Your task to perform on an android device: Search for pizza restaurants on Maps Image 0: 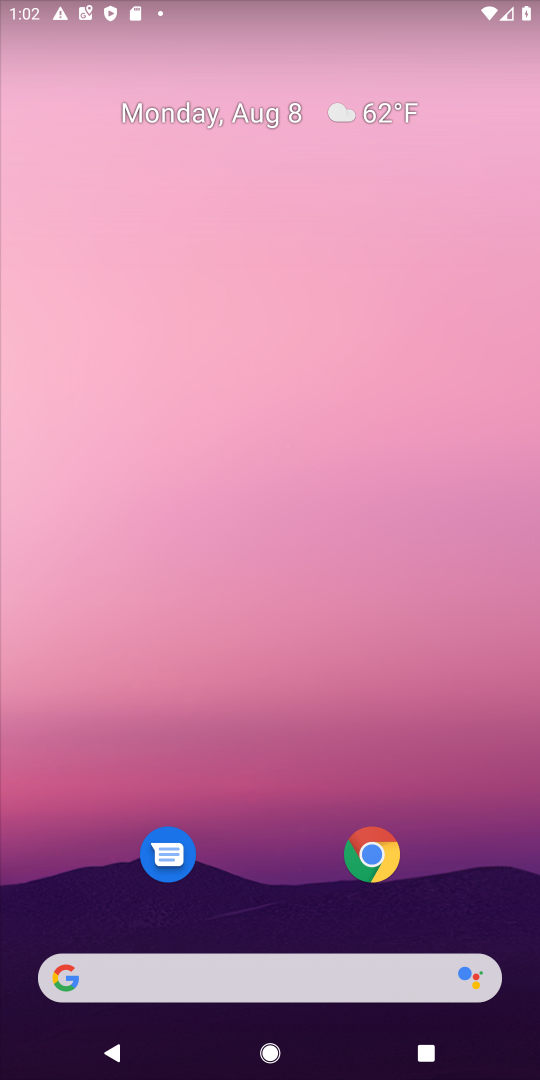
Step 0: press home button
Your task to perform on an android device: Search for pizza restaurants on Maps Image 1: 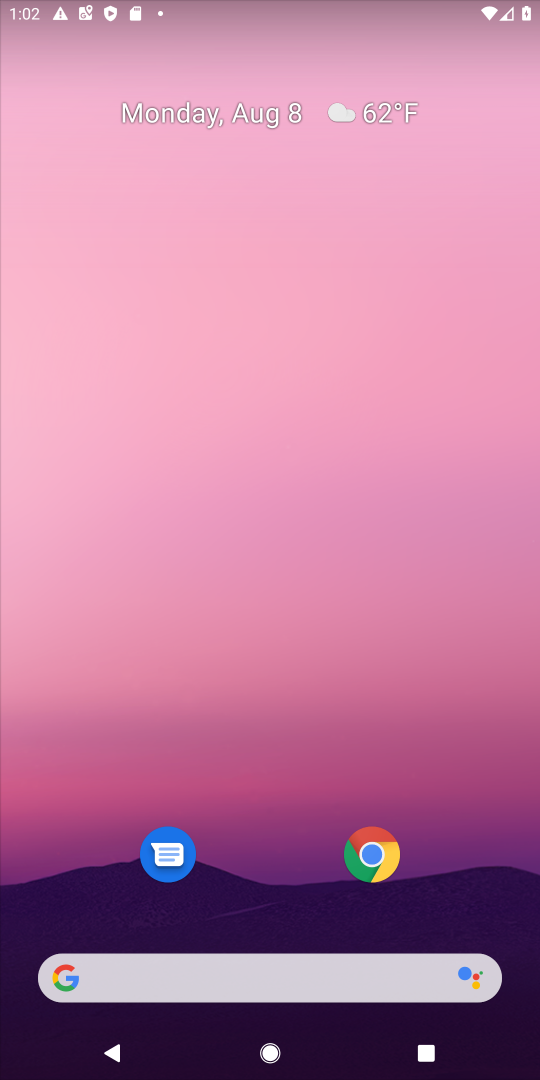
Step 1: press home button
Your task to perform on an android device: Search for pizza restaurants on Maps Image 2: 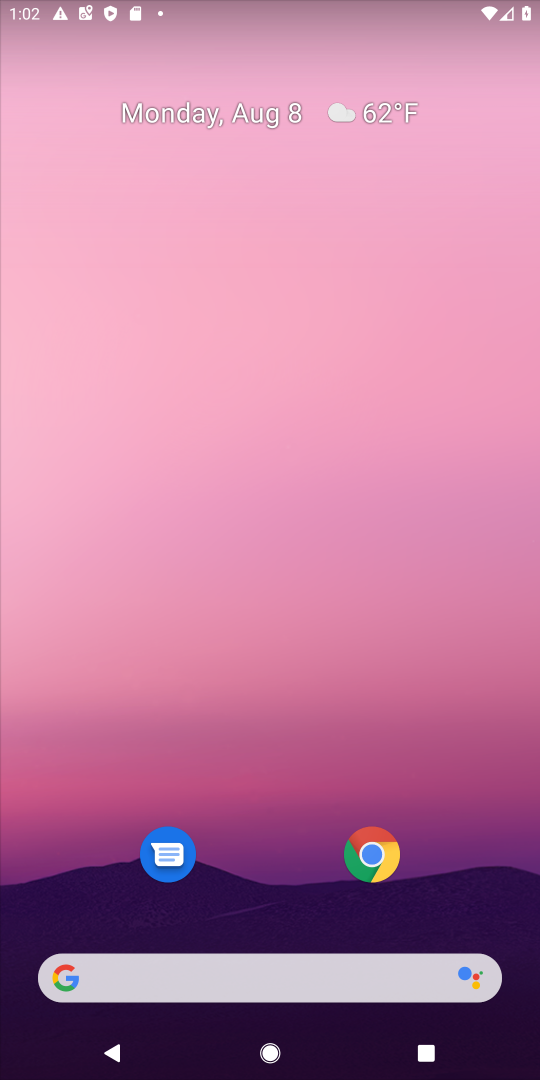
Step 2: drag from (257, 893) to (304, 138)
Your task to perform on an android device: Search for pizza restaurants on Maps Image 3: 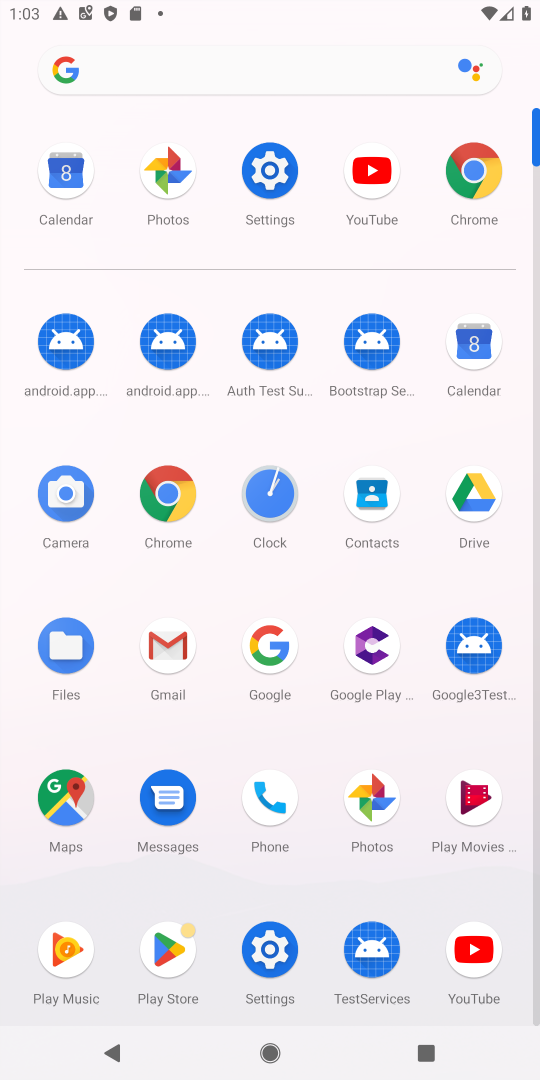
Step 3: click (77, 784)
Your task to perform on an android device: Search for pizza restaurants on Maps Image 4: 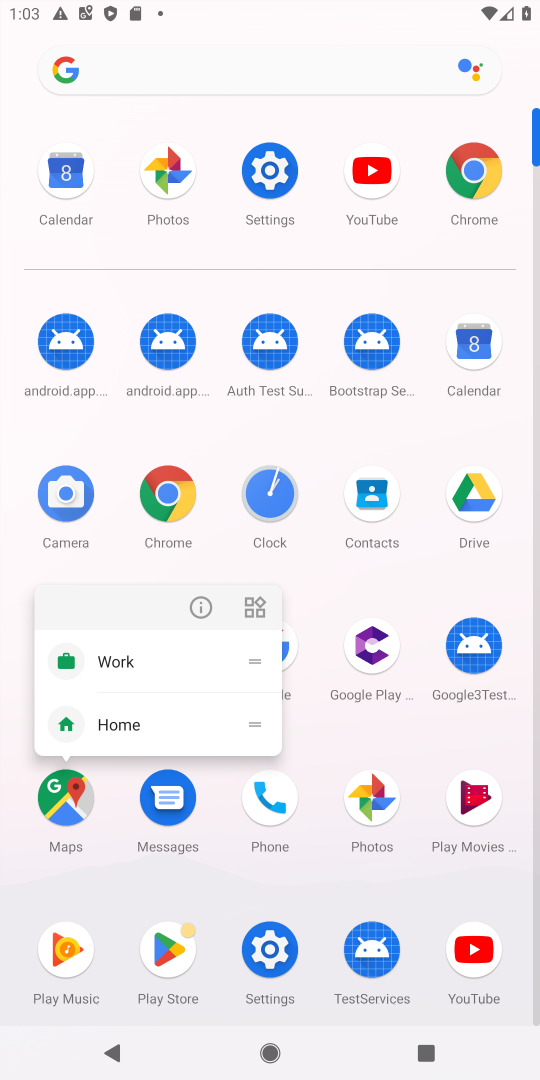
Step 4: click (69, 801)
Your task to perform on an android device: Search for pizza restaurants on Maps Image 5: 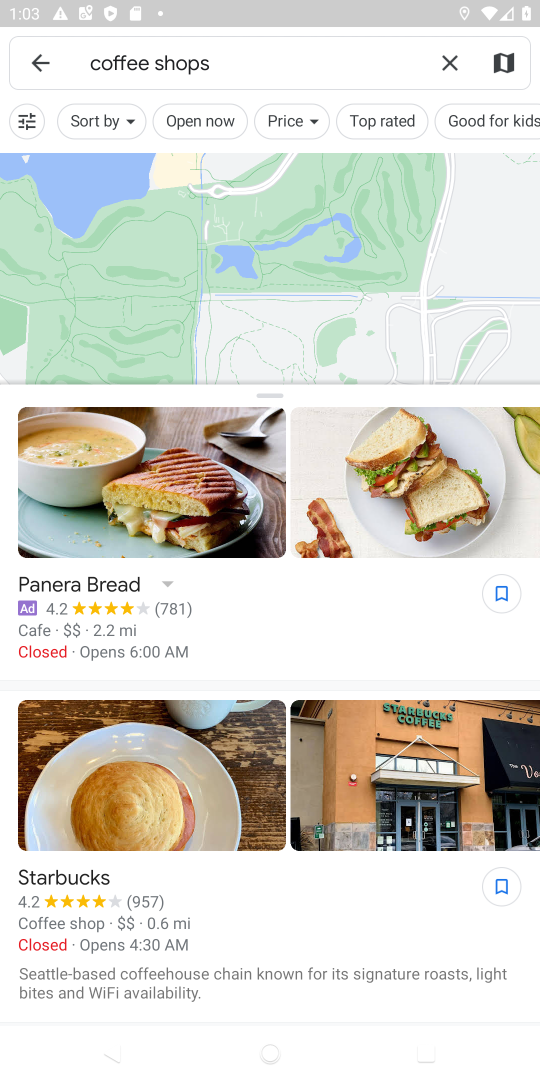
Step 5: click (454, 61)
Your task to perform on an android device: Search for pizza restaurants on Maps Image 6: 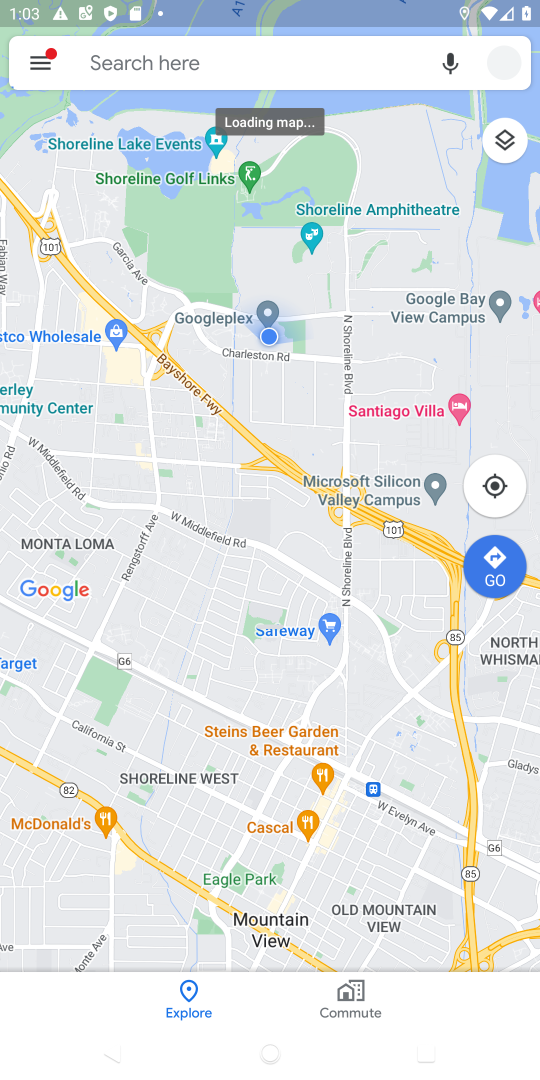
Step 6: type " pizza restaurants "
Your task to perform on an android device: Search for pizza restaurants on Maps Image 7: 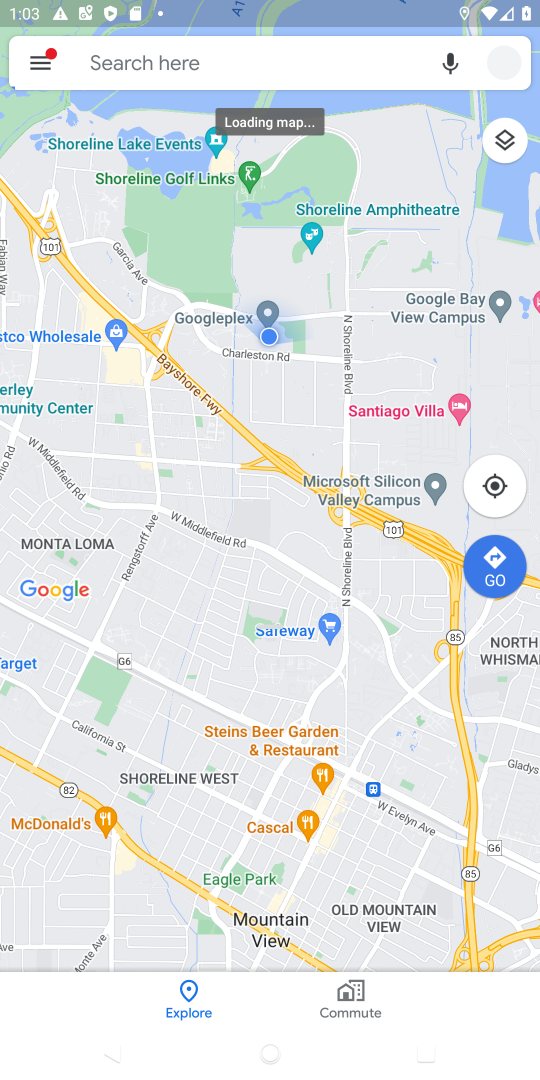
Step 7: click (109, 64)
Your task to perform on an android device: Search for pizza restaurants on Maps Image 8: 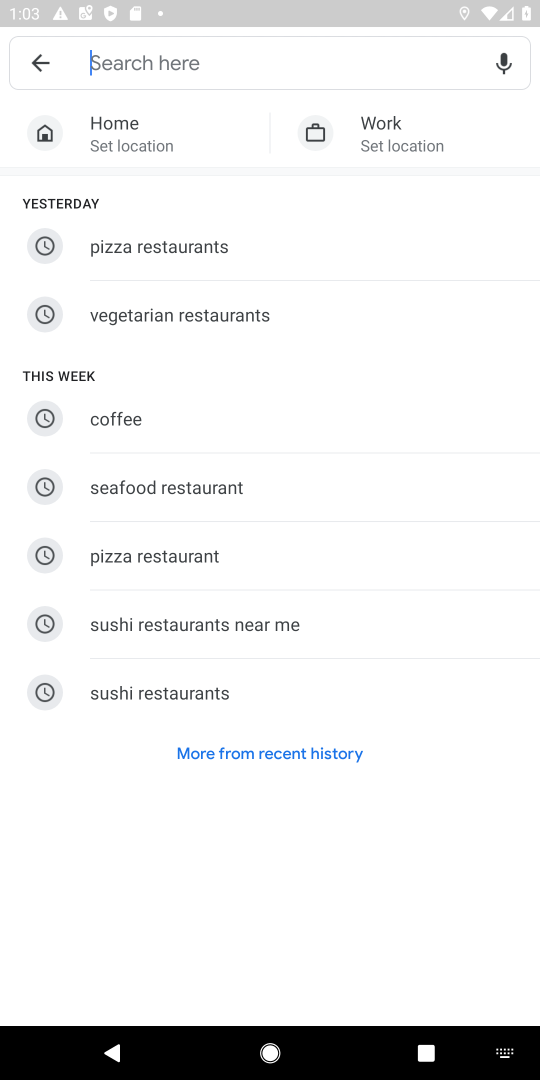
Step 8: click (143, 250)
Your task to perform on an android device: Search for pizza restaurants on Maps Image 9: 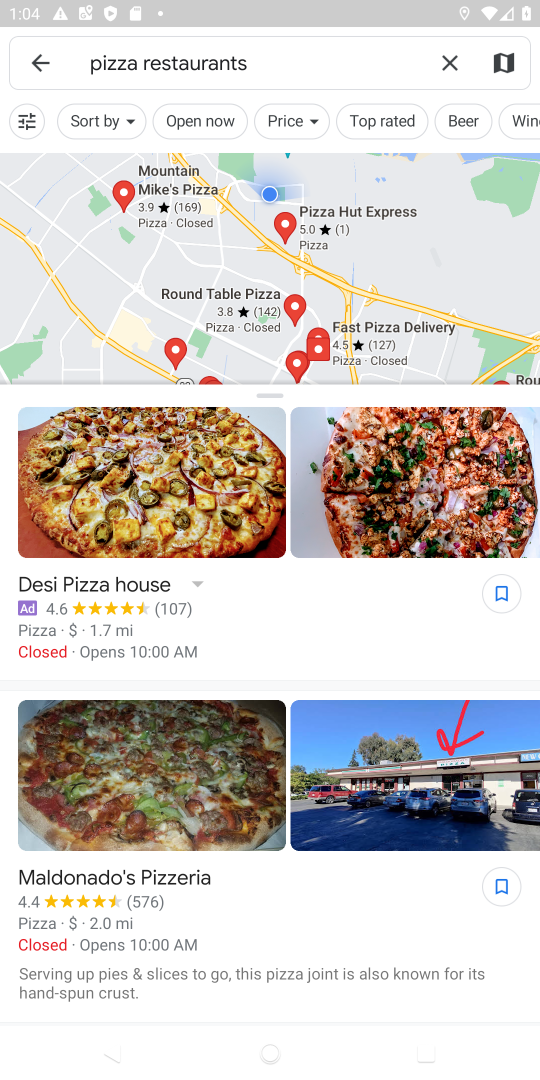
Step 9: task complete